Your task to perform on an android device: show emergency info Image 0: 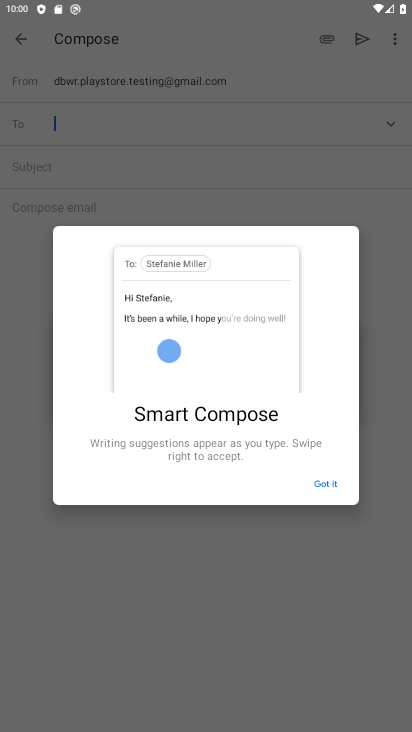
Step 0: press home button
Your task to perform on an android device: show emergency info Image 1: 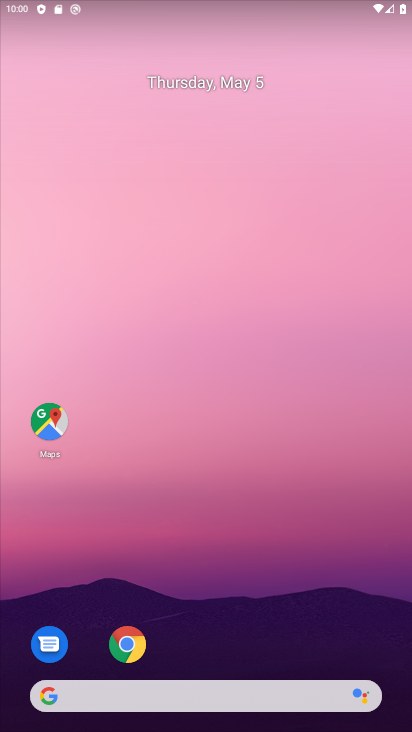
Step 1: drag from (201, 663) to (267, 145)
Your task to perform on an android device: show emergency info Image 2: 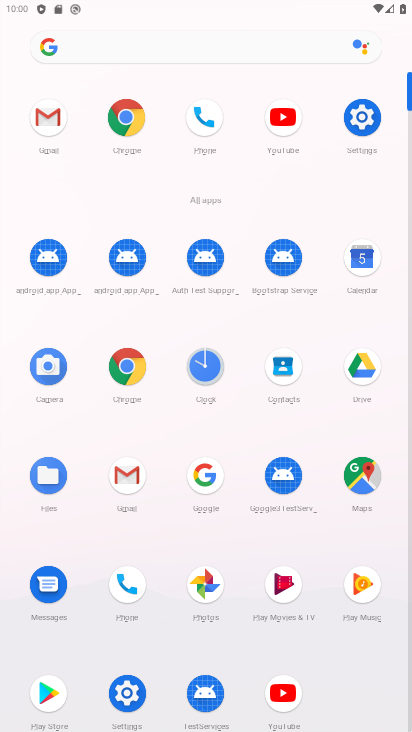
Step 2: click (361, 116)
Your task to perform on an android device: show emergency info Image 3: 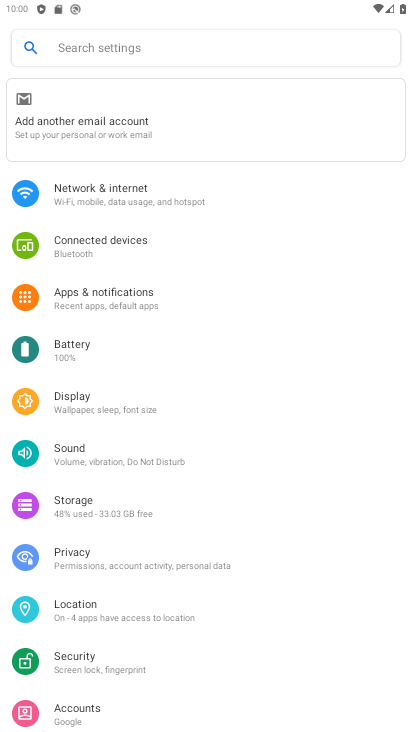
Step 3: drag from (222, 524) to (156, 50)
Your task to perform on an android device: show emergency info Image 4: 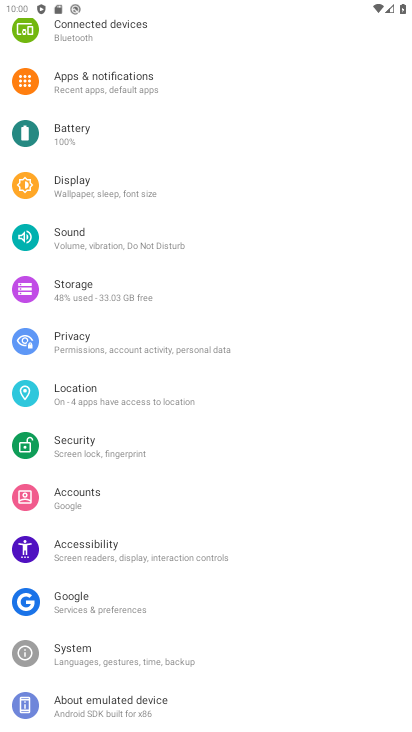
Step 4: click (88, 713)
Your task to perform on an android device: show emergency info Image 5: 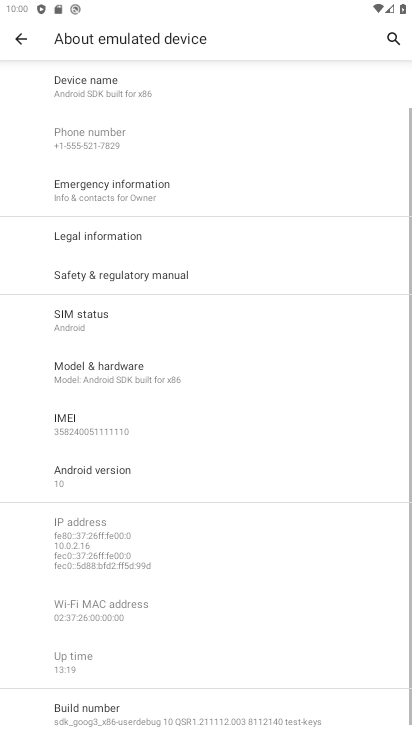
Step 5: click (63, 190)
Your task to perform on an android device: show emergency info Image 6: 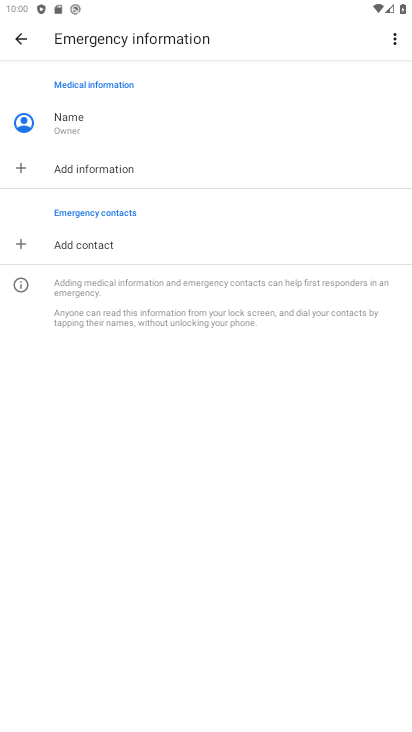
Step 6: task complete